Your task to perform on an android device: Search for "razer blade" on newegg, select the first entry, and add it to the cart. Image 0: 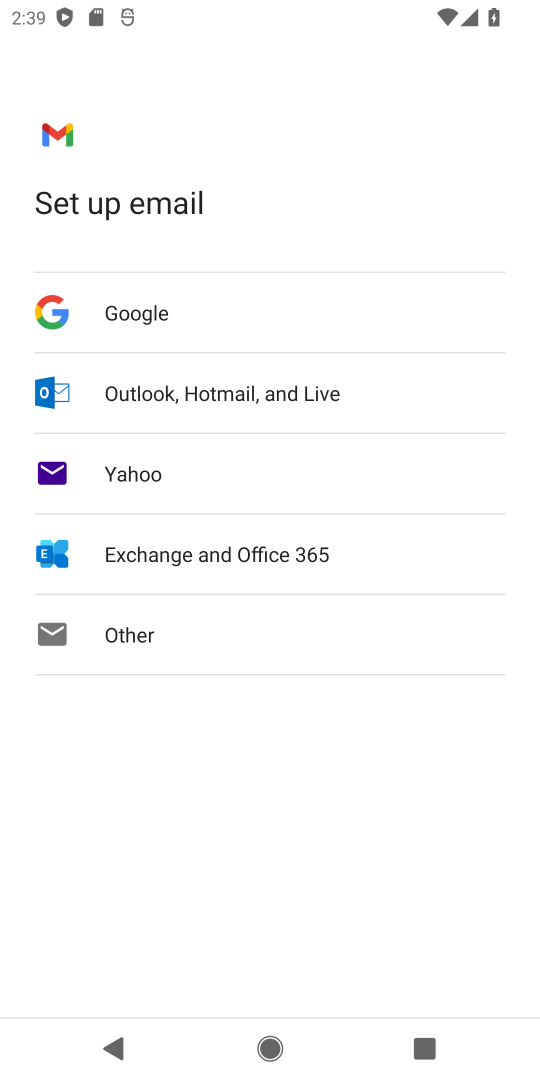
Step 0: press home button
Your task to perform on an android device: Search for "razer blade" on newegg, select the first entry, and add it to the cart. Image 1: 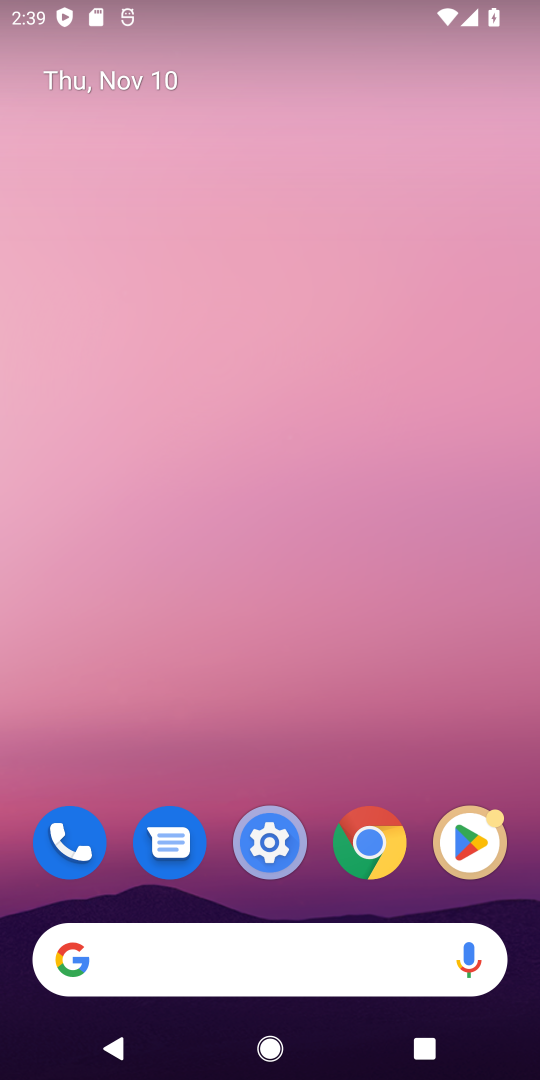
Step 1: click (108, 953)
Your task to perform on an android device: Search for "razer blade" on newegg, select the first entry, and add it to the cart. Image 2: 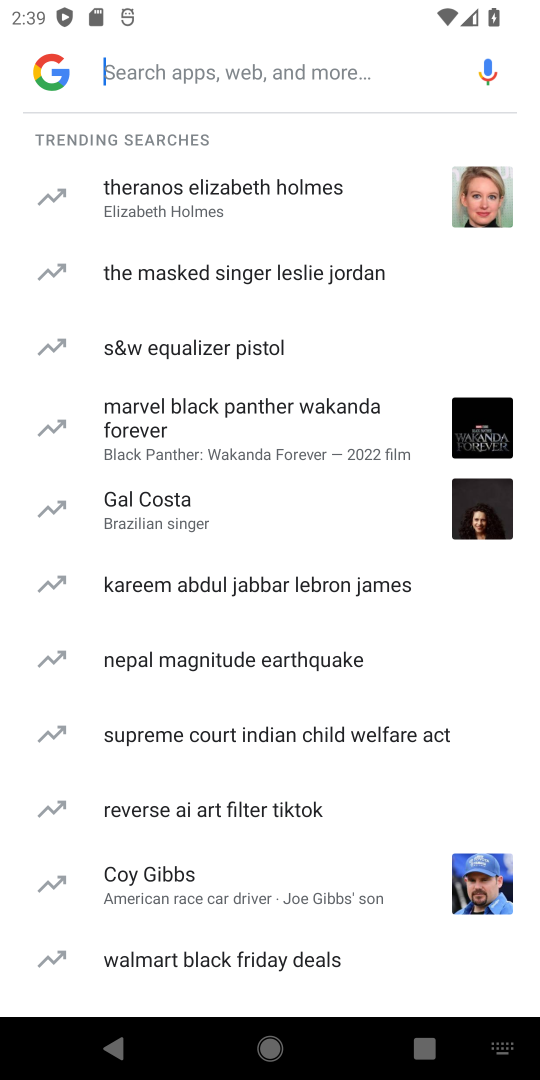
Step 2: type "newegg"
Your task to perform on an android device: Search for "razer blade" on newegg, select the first entry, and add it to the cart. Image 3: 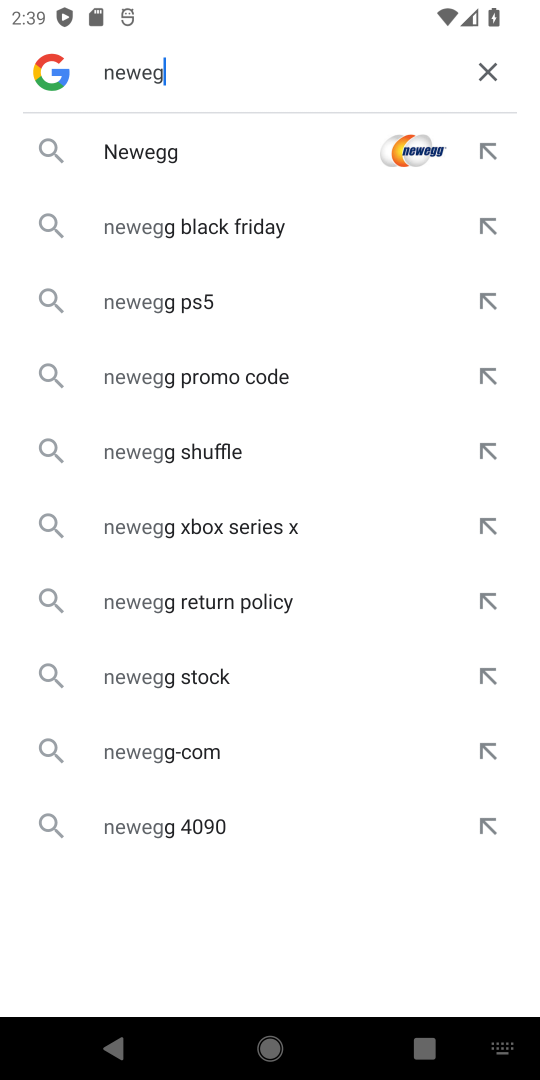
Step 3: press enter
Your task to perform on an android device: Search for "razer blade" on newegg, select the first entry, and add it to the cart. Image 4: 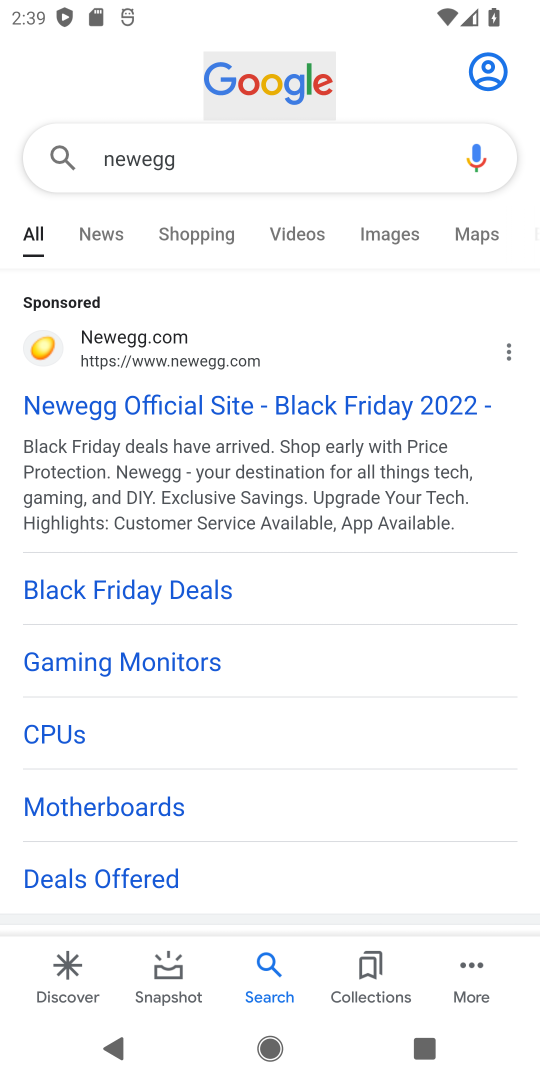
Step 4: click (134, 403)
Your task to perform on an android device: Search for "razer blade" on newegg, select the first entry, and add it to the cart. Image 5: 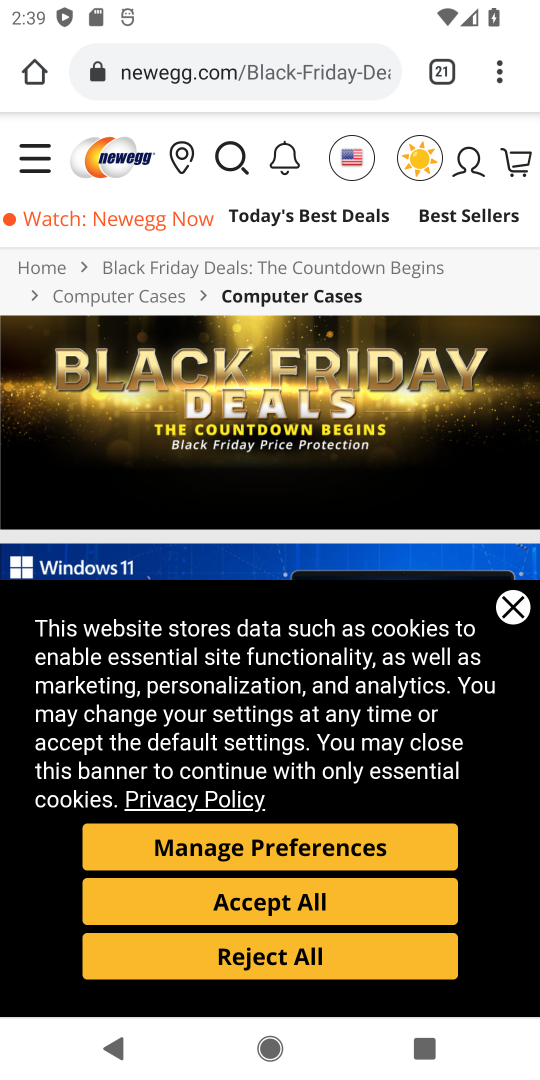
Step 5: click (297, 902)
Your task to perform on an android device: Search for "razer blade" on newegg, select the first entry, and add it to the cart. Image 6: 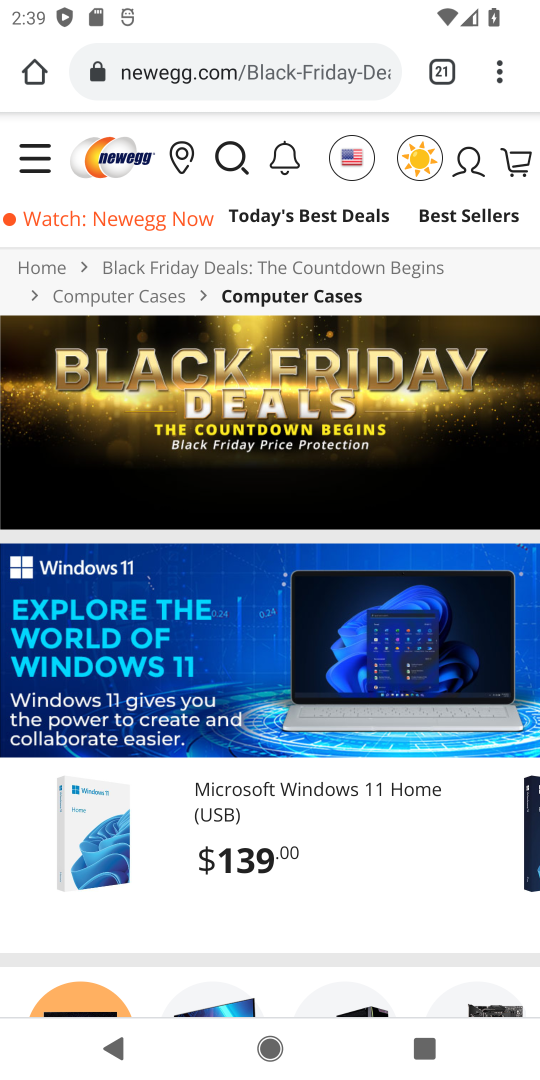
Step 6: drag from (375, 733) to (374, 341)
Your task to perform on an android device: Search for "razer blade" on newegg, select the first entry, and add it to the cart. Image 7: 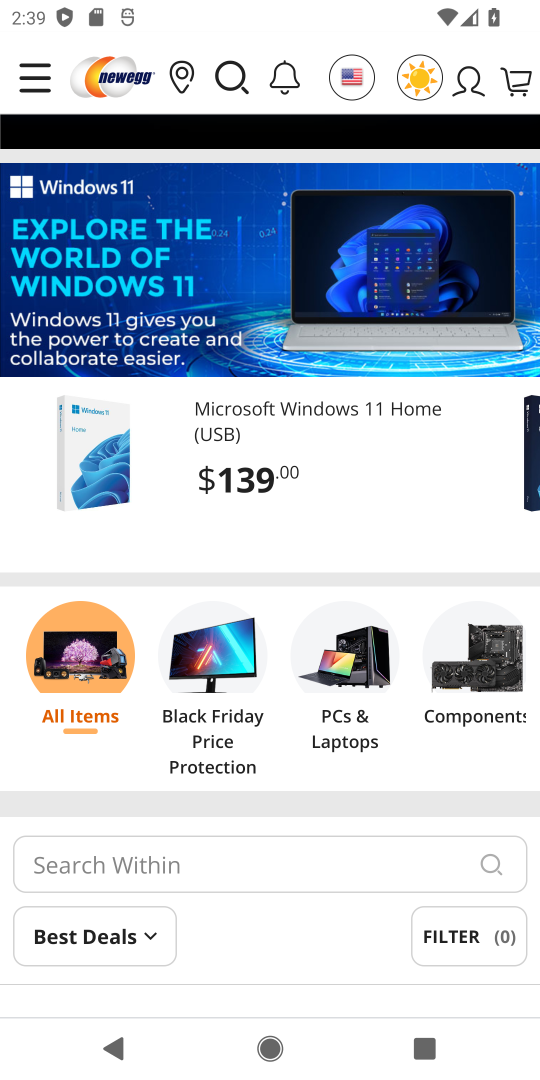
Step 7: drag from (307, 899) to (304, 347)
Your task to perform on an android device: Search for "razer blade" on newegg, select the first entry, and add it to the cart. Image 8: 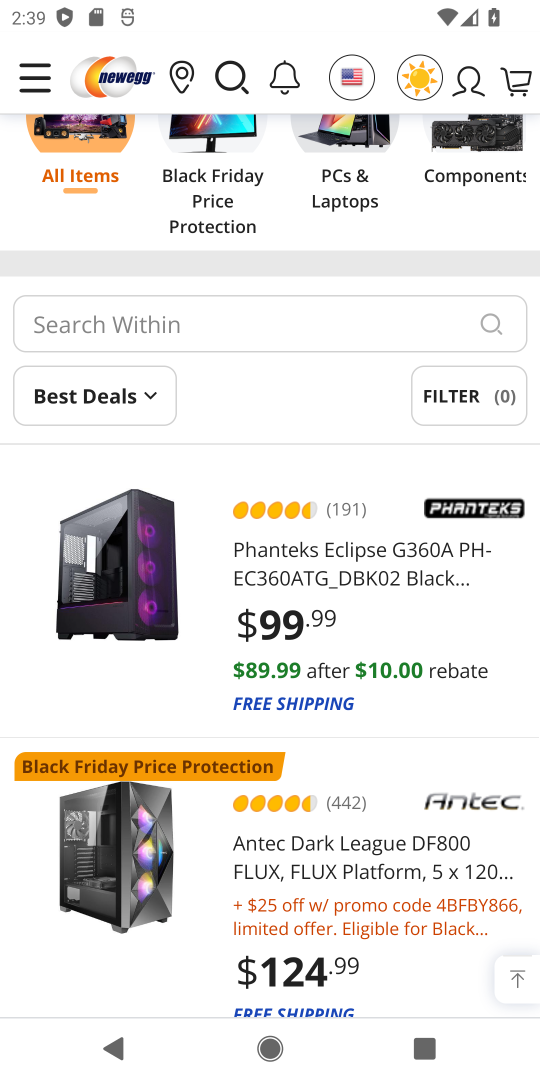
Step 8: drag from (295, 915) to (336, 551)
Your task to perform on an android device: Search for "razer blade" on newegg, select the first entry, and add it to the cart. Image 9: 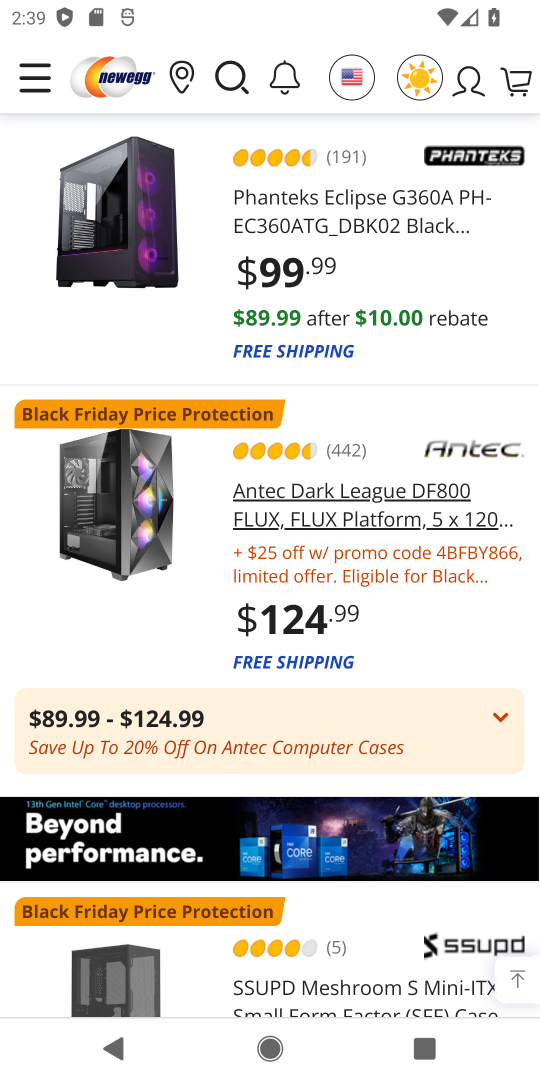
Step 9: drag from (335, 831) to (392, 391)
Your task to perform on an android device: Search for "razer blade" on newegg, select the first entry, and add it to the cart. Image 10: 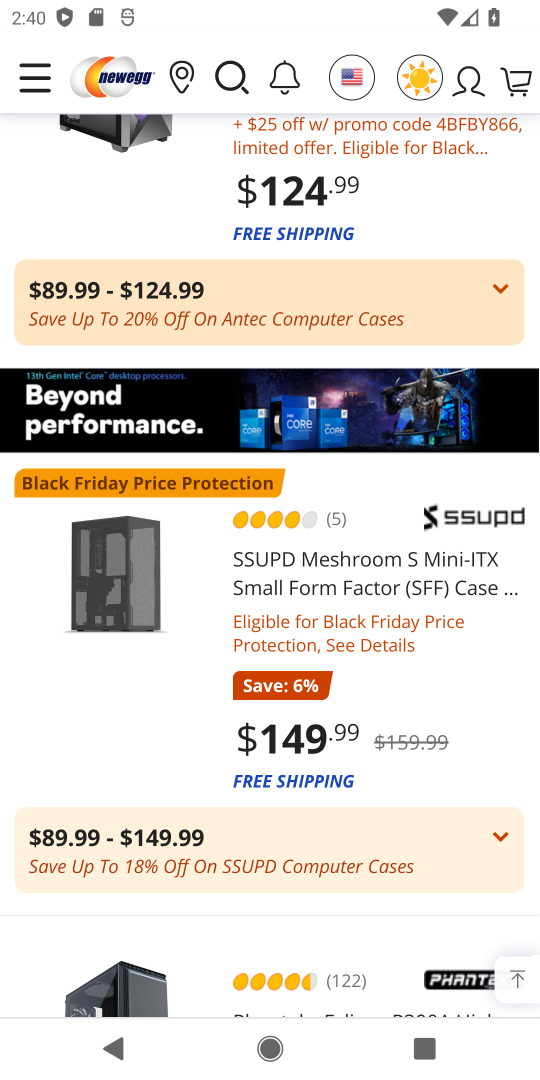
Step 10: click (229, 75)
Your task to perform on an android device: Search for "razer blade" on newegg, select the first entry, and add it to the cart. Image 11: 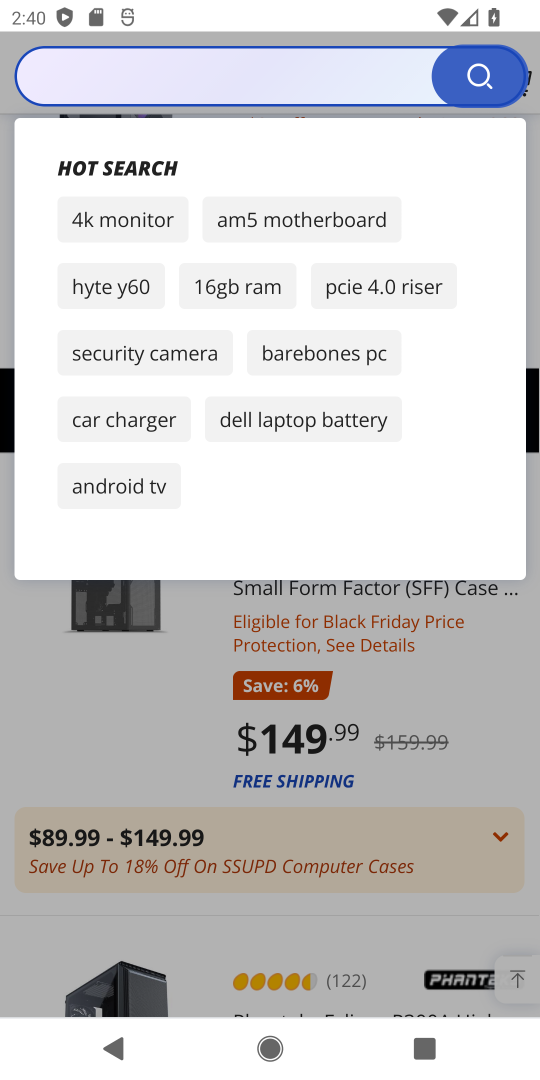
Step 11: type "razer blade"
Your task to perform on an android device: Search for "razer blade" on newegg, select the first entry, and add it to the cart. Image 12: 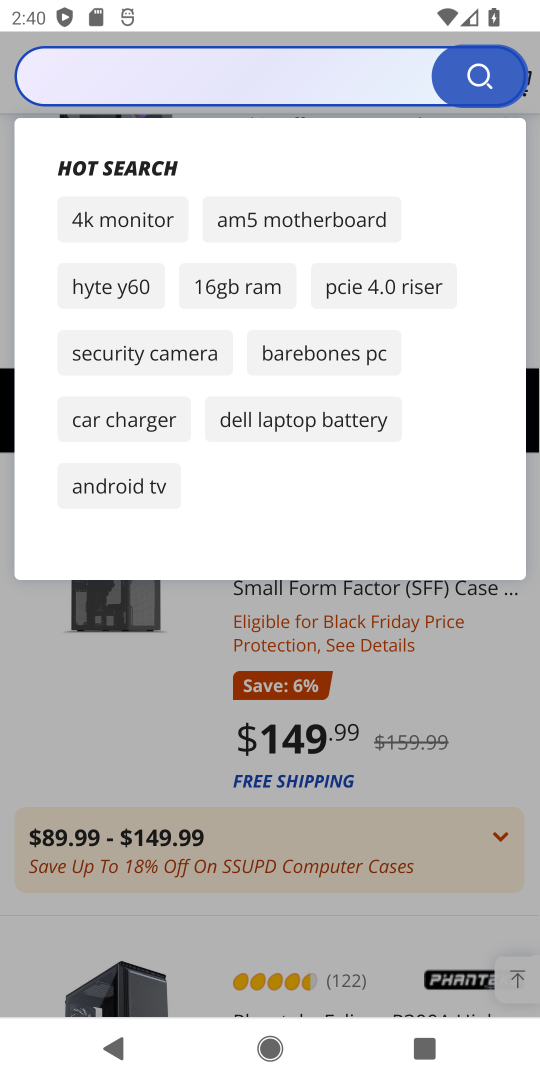
Step 12: press enter
Your task to perform on an android device: Search for "razer blade" on newegg, select the first entry, and add it to the cart. Image 13: 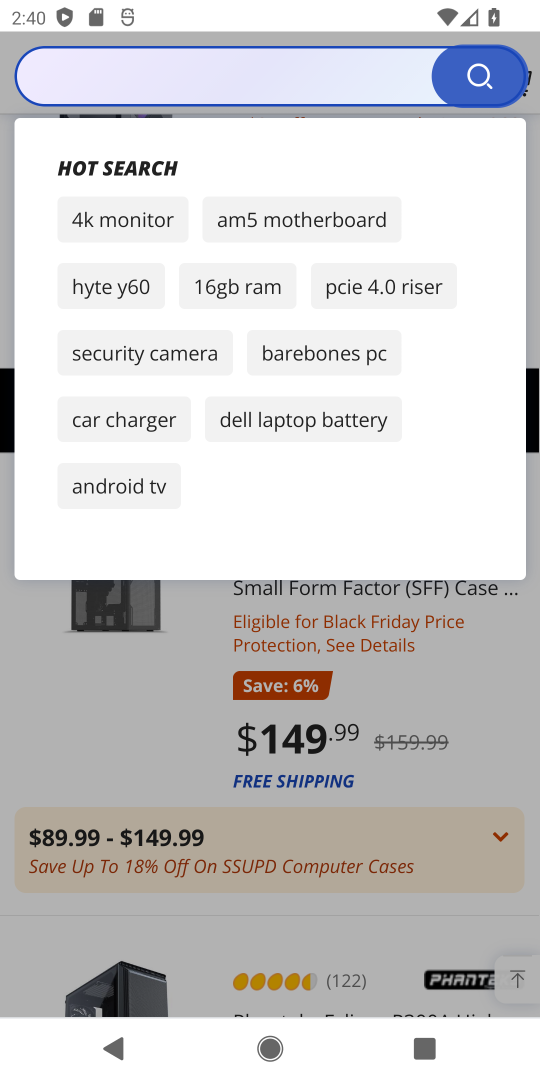
Step 13: click (104, 71)
Your task to perform on an android device: Search for "razer blade" on newegg, select the first entry, and add it to the cart. Image 14: 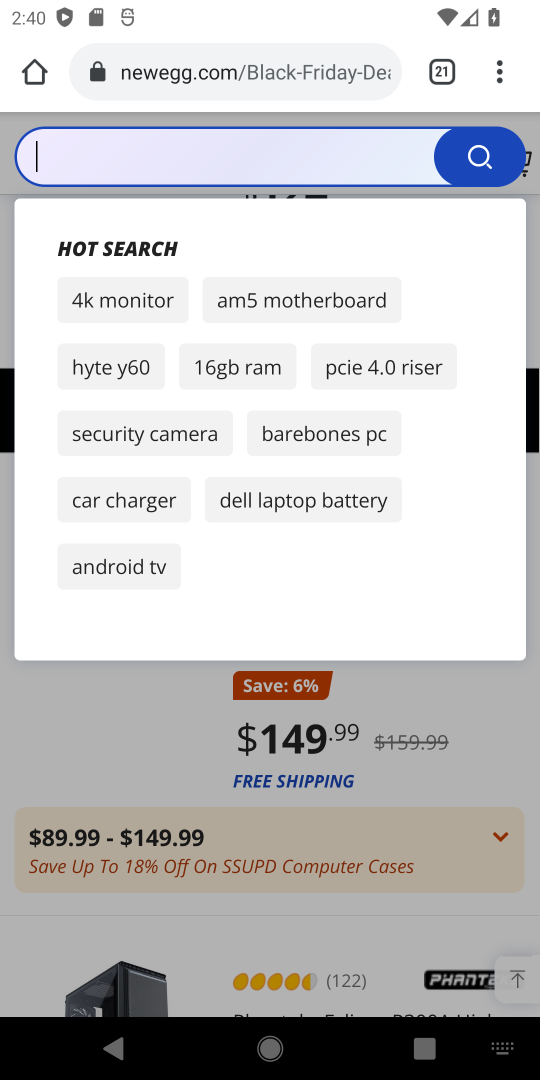
Step 14: type "razer blade"
Your task to perform on an android device: Search for "razer blade" on newegg, select the first entry, and add it to the cart. Image 15: 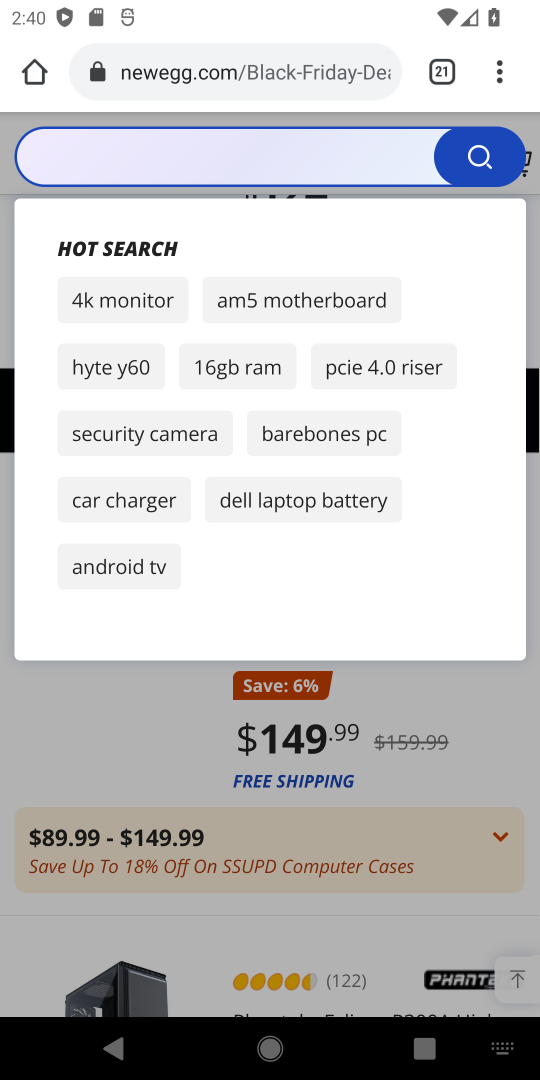
Step 15: press enter
Your task to perform on an android device: Search for "razer blade" on newegg, select the first entry, and add it to the cart. Image 16: 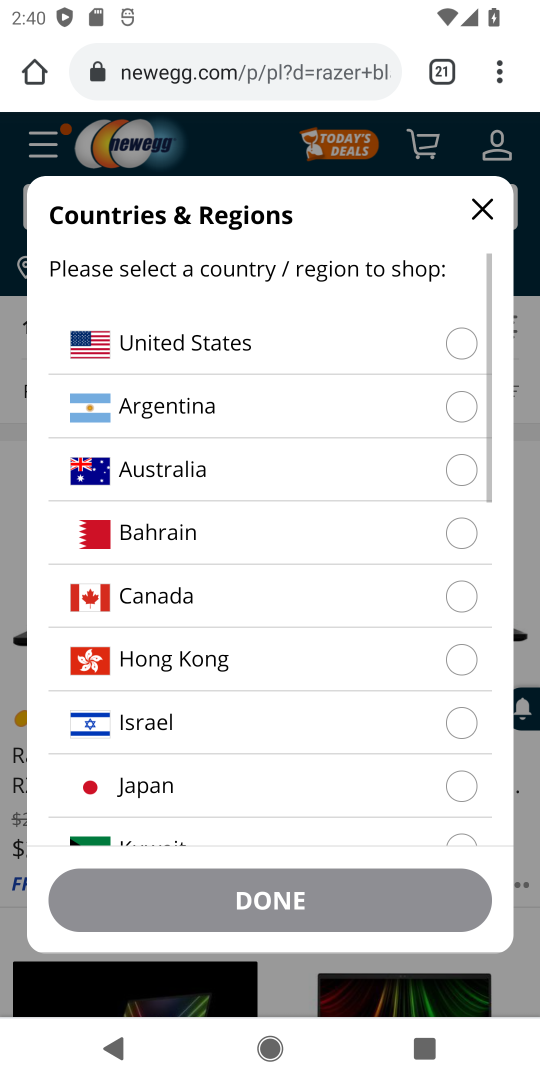
Step 16: click (483, 206)
Your task to perform on an android device: Search for "razer blade" on newegg, select the first entry, and add it to the cart. Image 17: 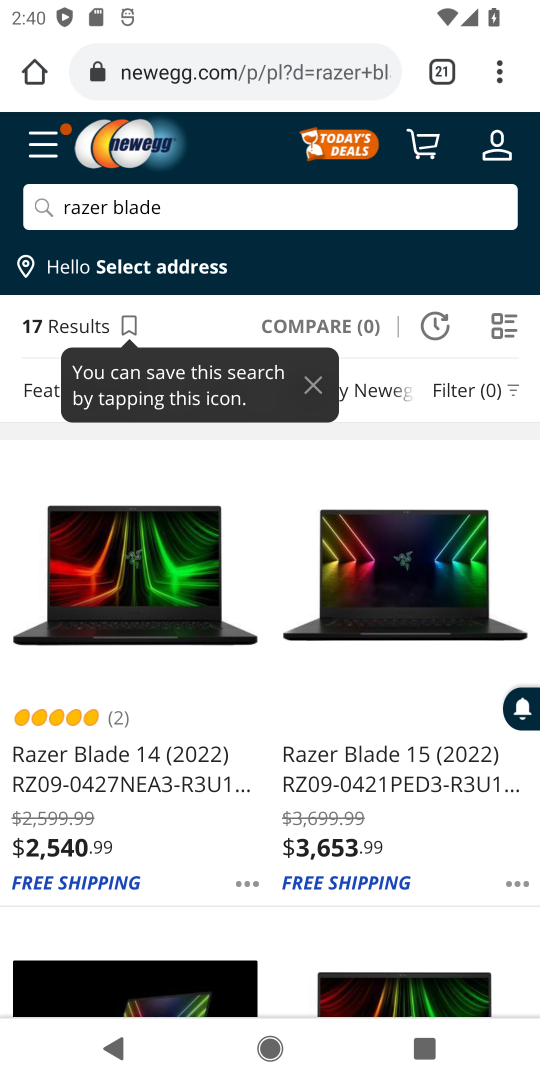
Step 17: click (143, 756)
Your task to perform on an android device: Search for "razer blade" on newegg, select the first entry, and add it to the cart. Image 18: 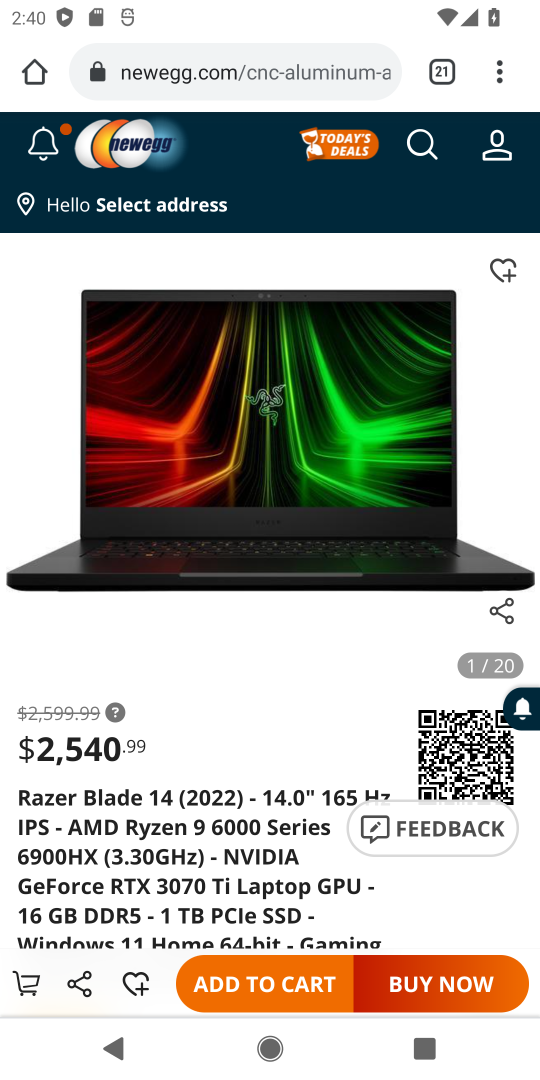
Step 18: click (223, 993)
Your task to perform on an android device: Search for "razer blade" on newegg, select the first entry, and add it to the cart. Image 19: 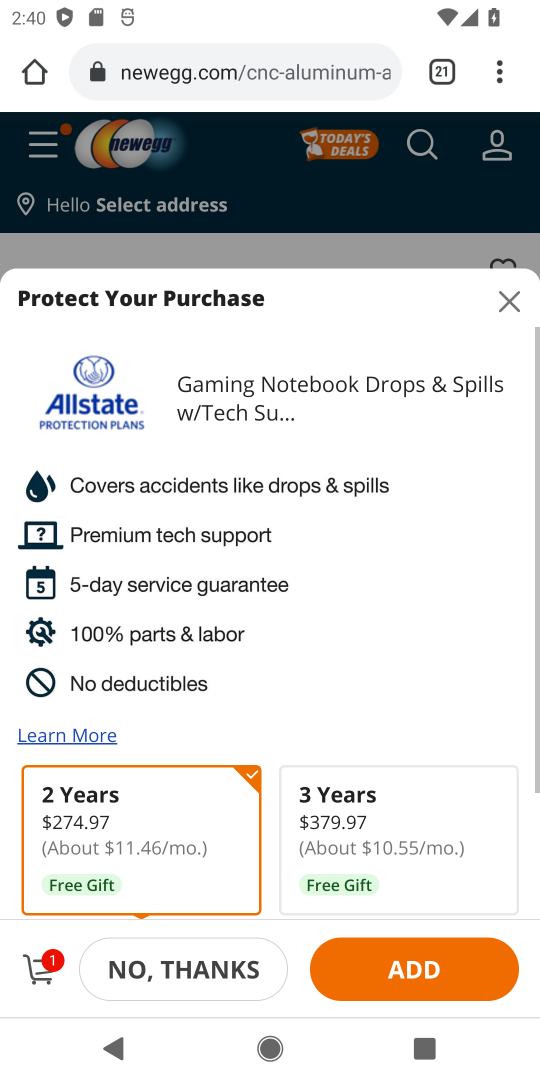
Step 19: task complete